Your task to perform on an android device: empty trash in google photos Image 0: 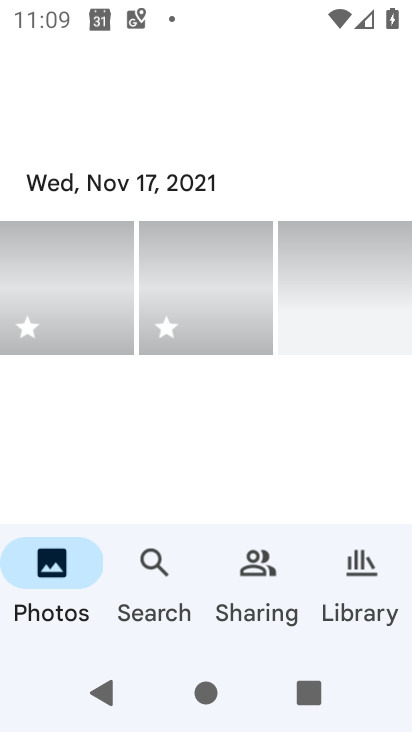
Step 0: drag from (366, 555) to (231, 103)
Your task to perform on an android device: empty trash in google photos Image 1: 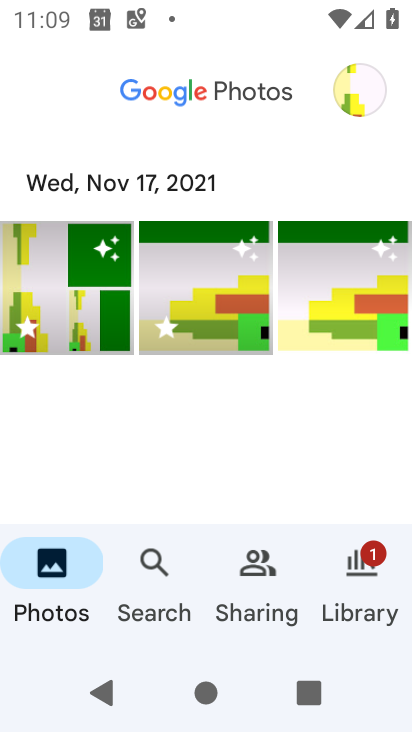
Step 1: press home button
Your task to perform on an android device: empty trash in google photos Image 2: 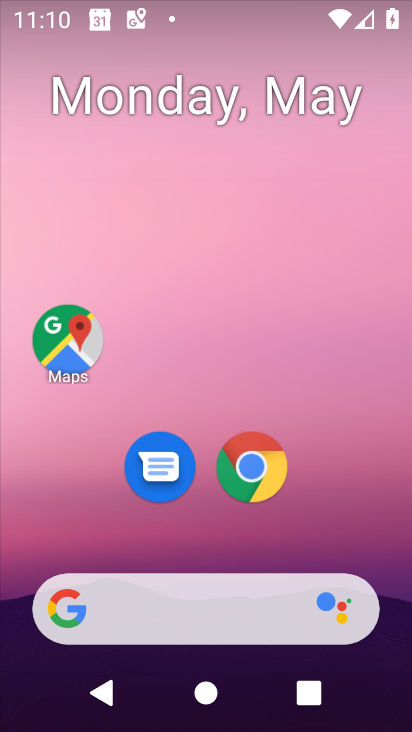
Step 2: drag from (335, 529) to (225, 5)
Your task to perform on an android device: empty trash in google photos Image 3: 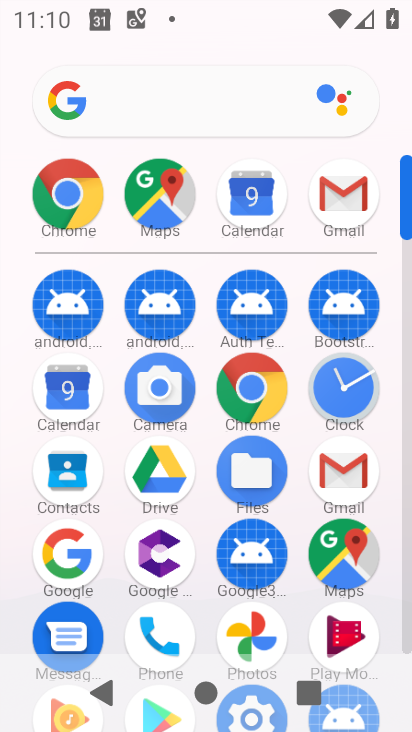
Step 3: click (262, 632)
Your task to perform on an android device: empty trash in google photos Image 4: 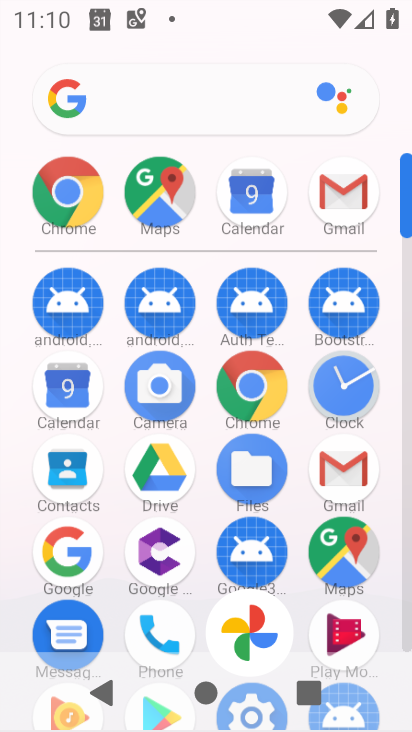
Step 4: click (262, 632)
Your task to perform on an android device: empty trash in google photos Image 5: 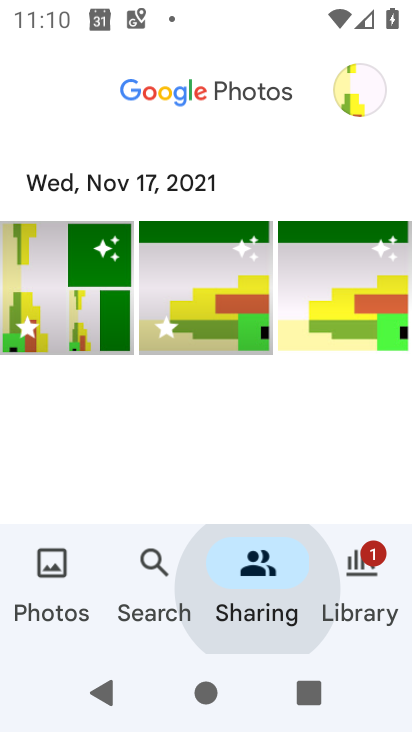
Step 5: click (257, 632)
Your task to perform on an android device: empty trash in google photos Image 6: 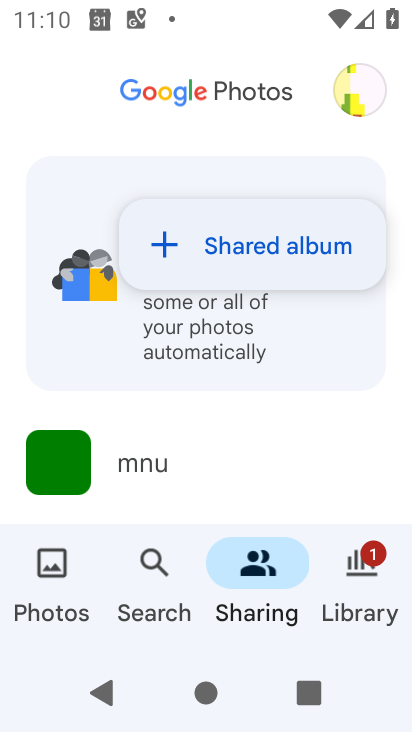
Step 6: press back button
Your task to perform on an android device: empty trash in google photos Image 7: 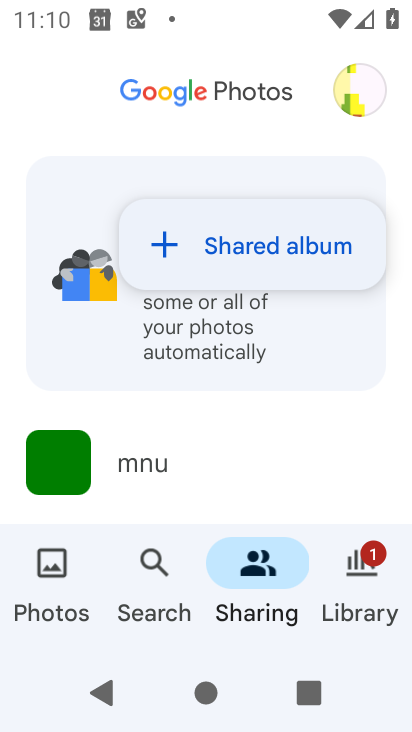
Step 7: press back button
Your task to perform on an android device: empty trash in google photos Image 8: 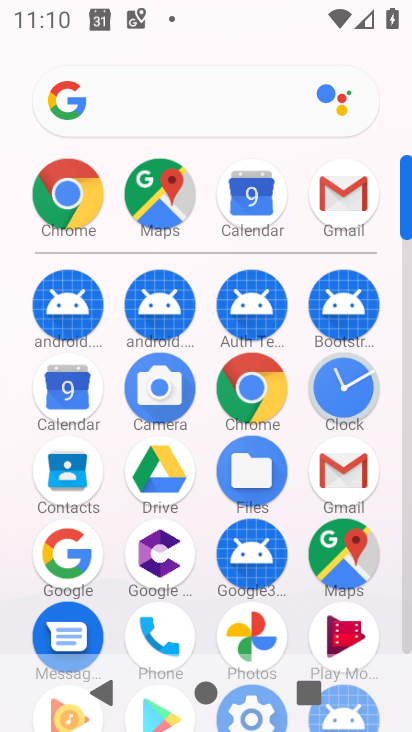
Step 8: click (242, 624)
Your task to perform on an android device: empty trash in google photos Image 9: 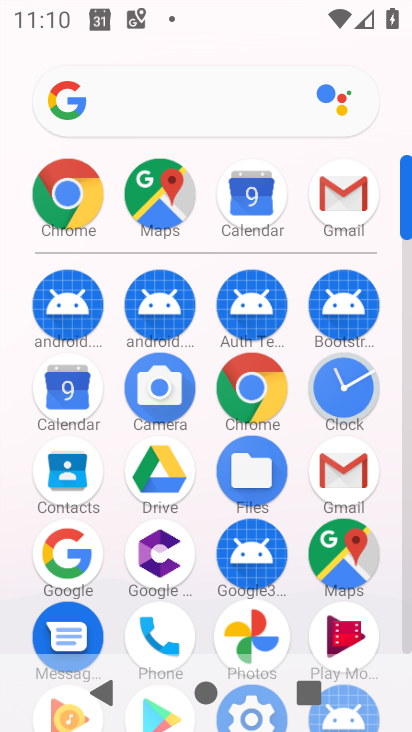
Step 9: click (243, 624)
Your task to perform on an android device: empty trash in google photos Image 10: 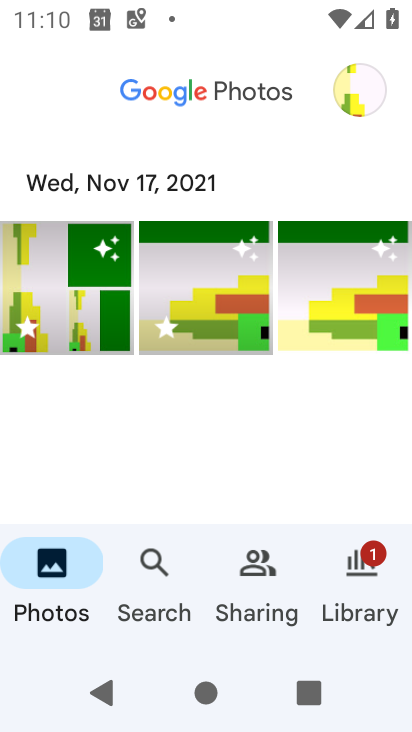
Step 10: click (70, 97)
Your task to perform on an android device: empty trash in google photos Image 11: 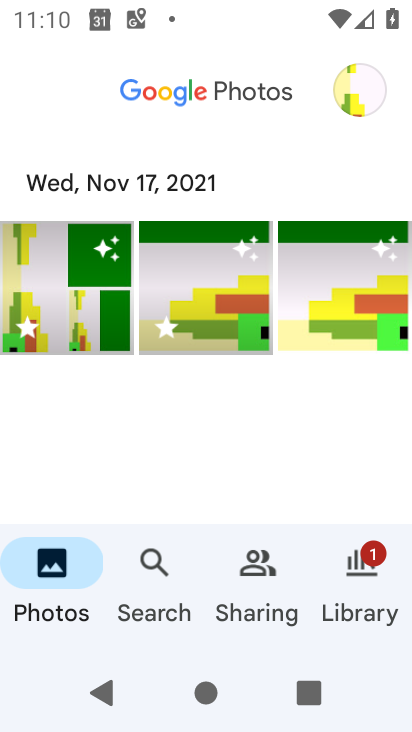
Step 11: click (345, 93)
Your task to perform on an android device: empty trash in google photos Image 12: 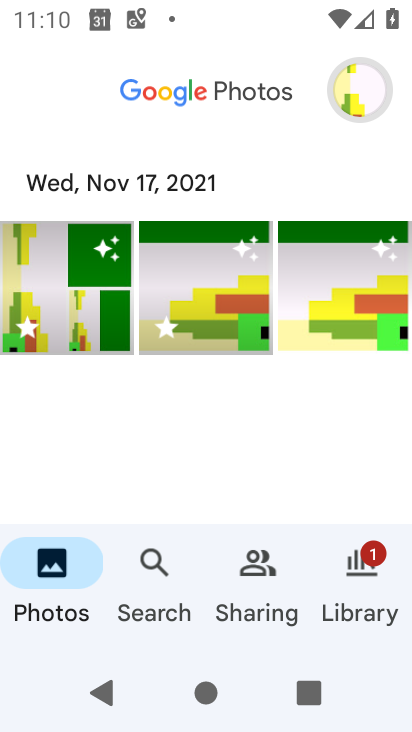
Step 12: click (280, 394)
Your task to perform on an android device: empty trash in google photos Image 13: 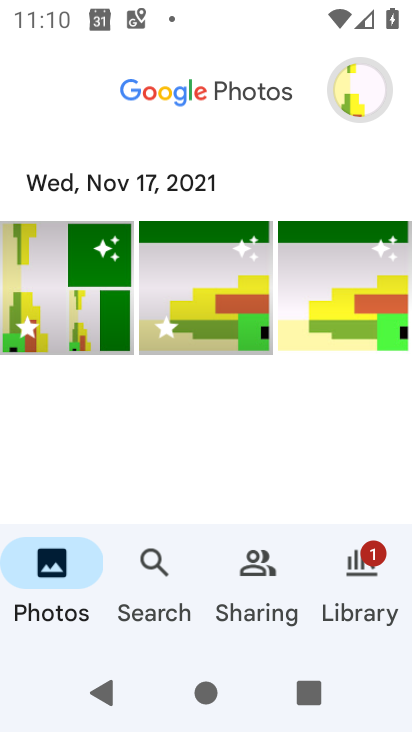
Step 13: drag from (268, 419) to (294, 88)
Your task to perform on an android device: empty trash in google photos Image 14: 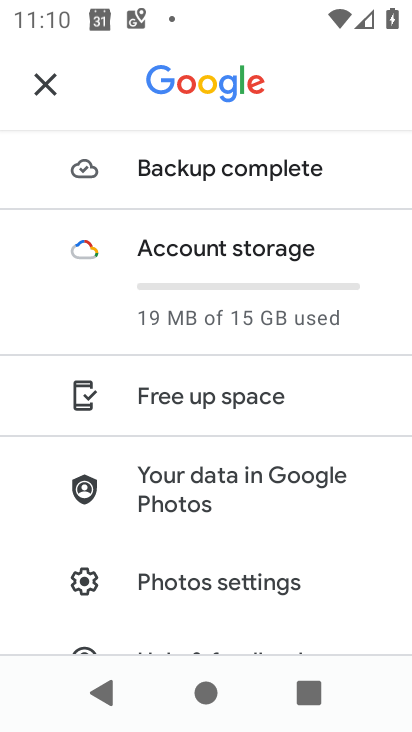
Step 14: drag from (237, 417) to (275, 191)
Your task to perform on an android device: empty trash in google photos Image 15: 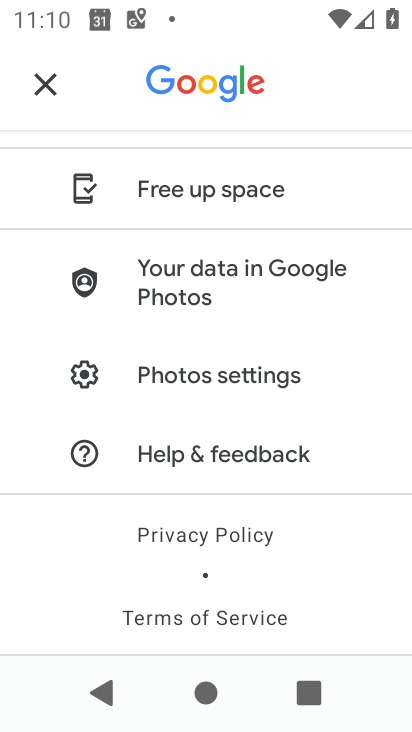
Step 15: click (49, 84)
Your task to perform on an android device: empty trash in google photos Image 16: 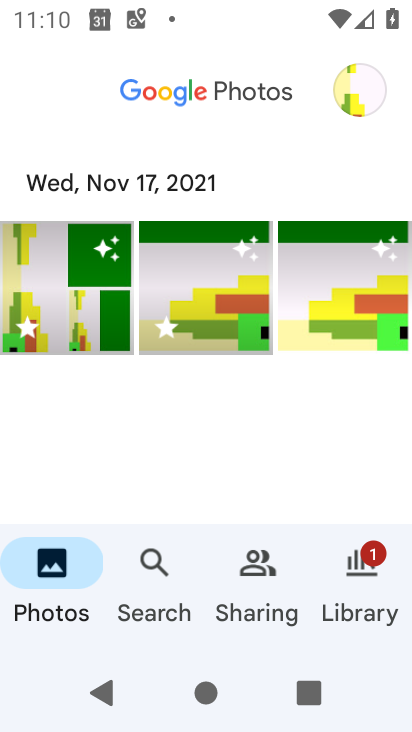
Step 16: task complete